Your task to perform on an android device: check battery use Image 0: 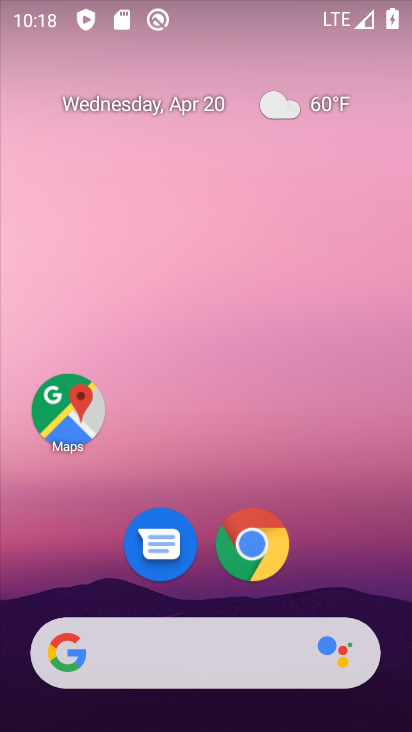
Step 0: drag from (367, 550) to (316, 126)
Your task to perform on an android device: check battery use Image 1: 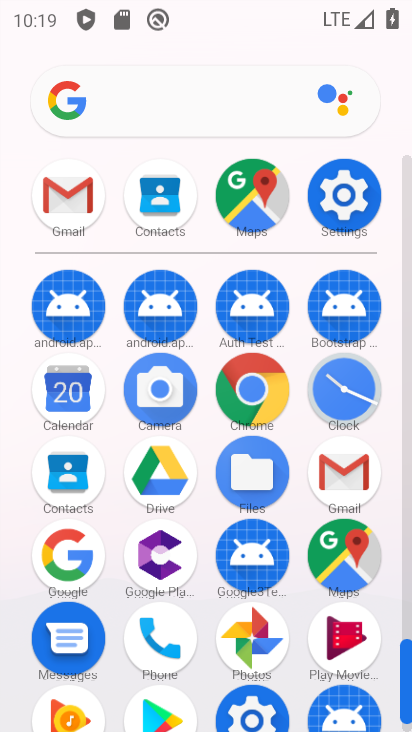
Step 1: click (345, 216)
Your task to perform on an android device: check battery use Image 2: 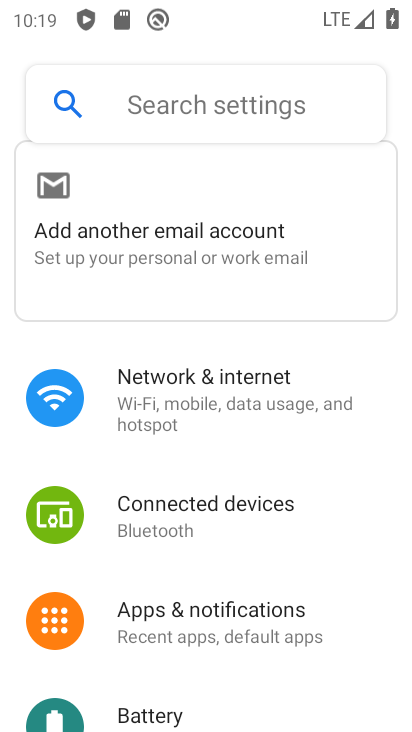
Step 2: click (297, 717)
Your task to perform on an android device: check battery use Image 3: 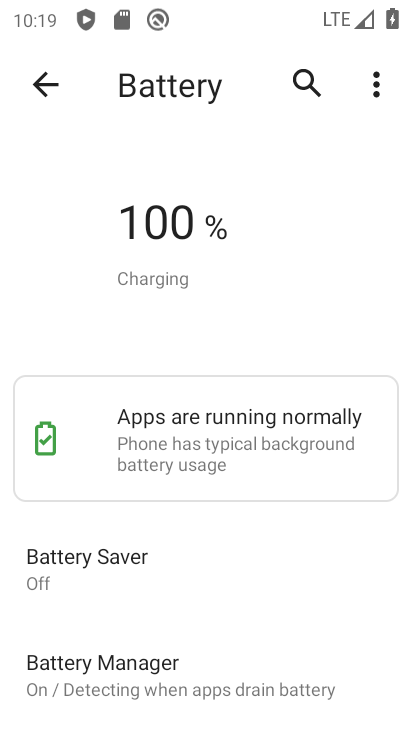
Step 3: click (385, 81)
Your task to perform on an android device: check battery use Image 4: 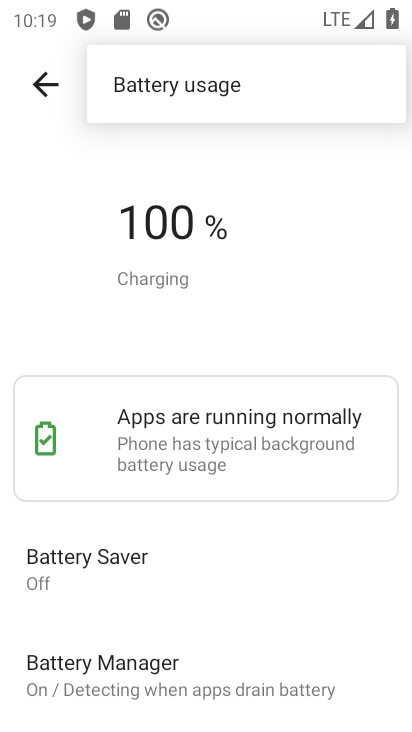
Step 4: click (233, 92)
Your task to perform on an android device: check battery use Image 5: 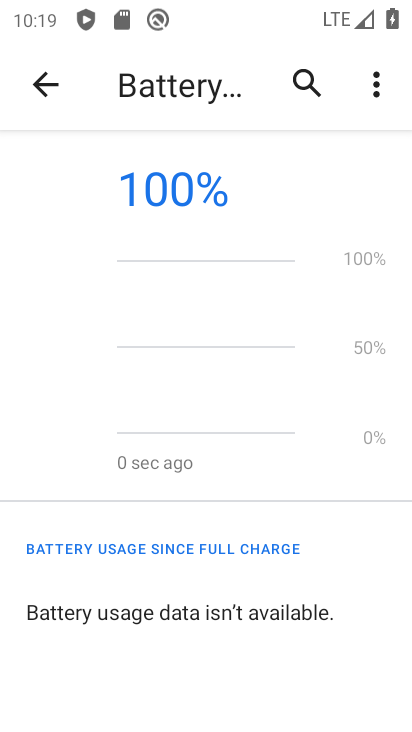
Step 5: task complete